Your task to perform on an android device: open chrome and create a bookmark for the current page Image 0: 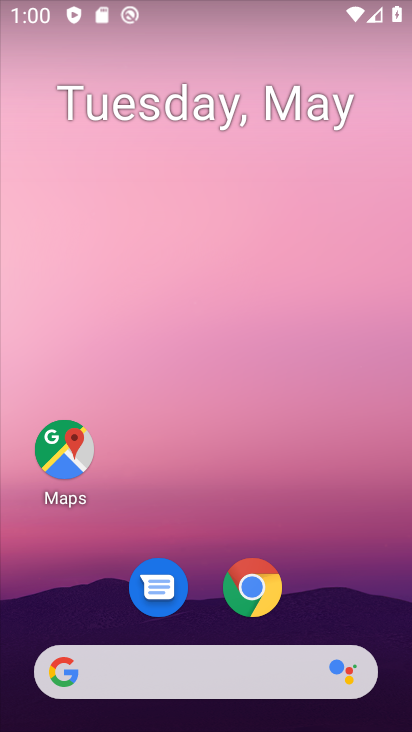
Step 0: drag from (209, 606) to (216, 108)
Your task to perform on an android device: open chrome and create a bookmark for the current page Image 1: 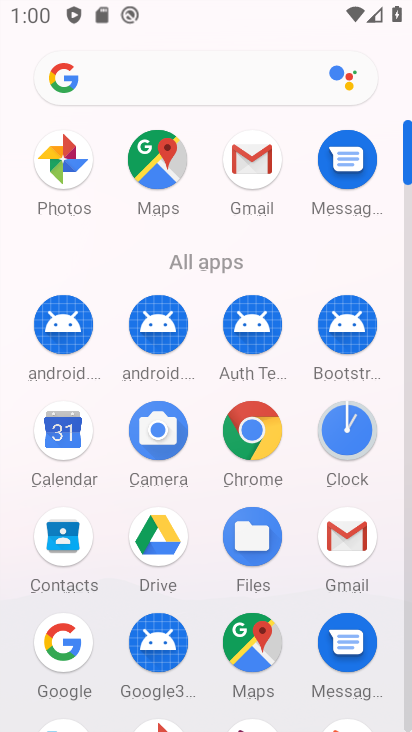
Step 1: click (256, 437)
Your task to perform on an android device: open chrome and create a bookmark for the current page Image 2: 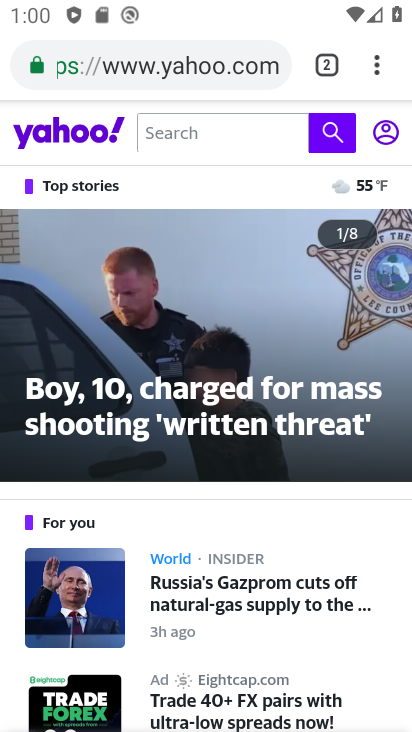
Step 2: drag from (374, 59) to (211, 256)
Your task to perform on an android device: open chrome and create a bookmark for the current page Image 3: 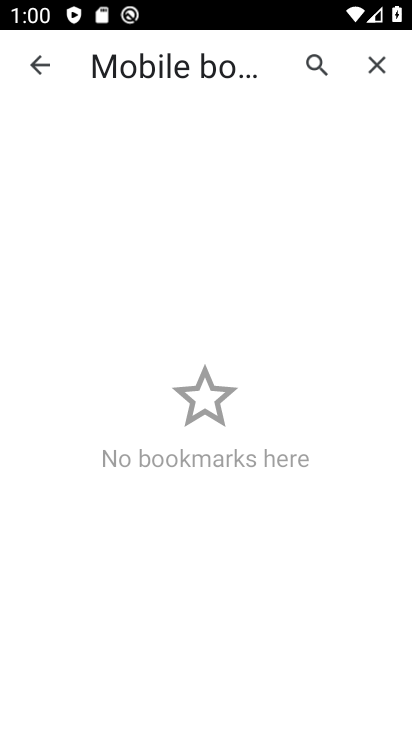
Step 3: click (379, 65)
Your task to perform on an android device: open chrome and create a bookmark for the current page Image 4: 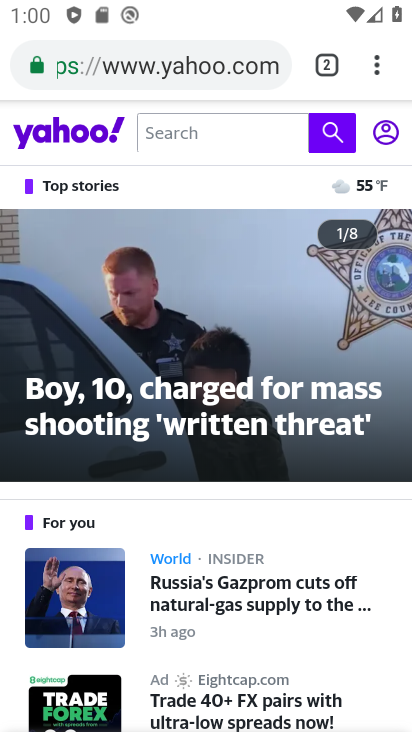
Step 4: click (375, 67)
Your task to perform on an android device: open chrome and create a bookmark for the current page Image 5: 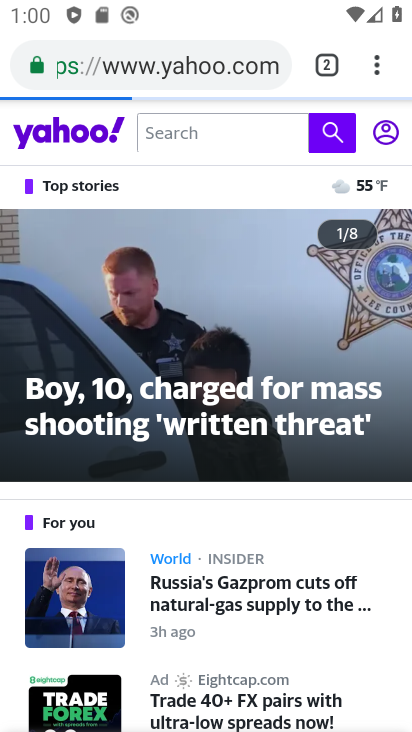
Step 5: task complete